Your task to perform on an android device: turn off airplane mode Image 0: 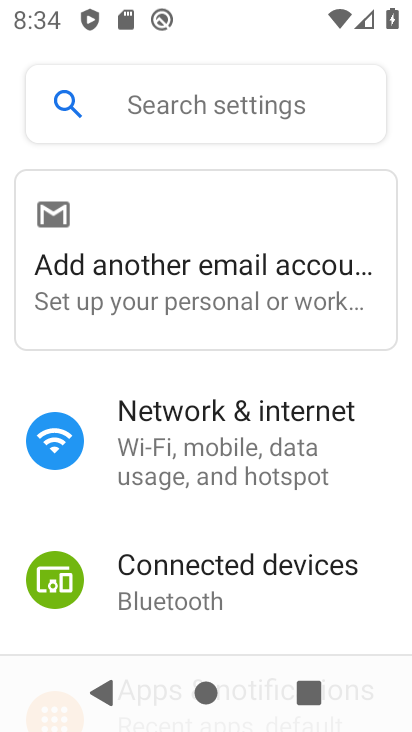
Step 0: click (221, 413)
Your task to perform on an android device: turn off airplane mode Image 1: 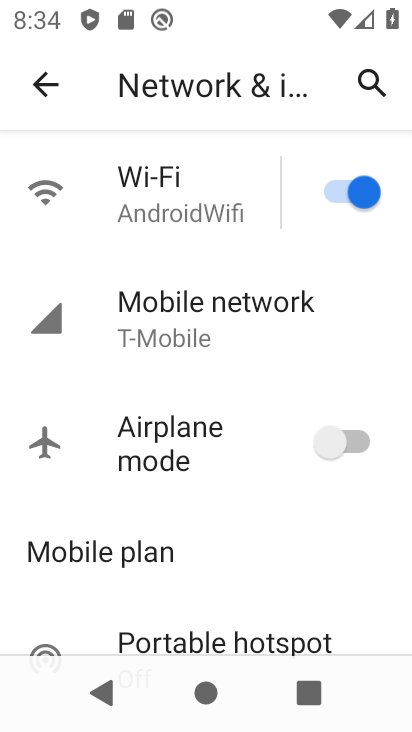
Step 1: task complete